Your task to perform on an android device: Open wifi settings Image 0: 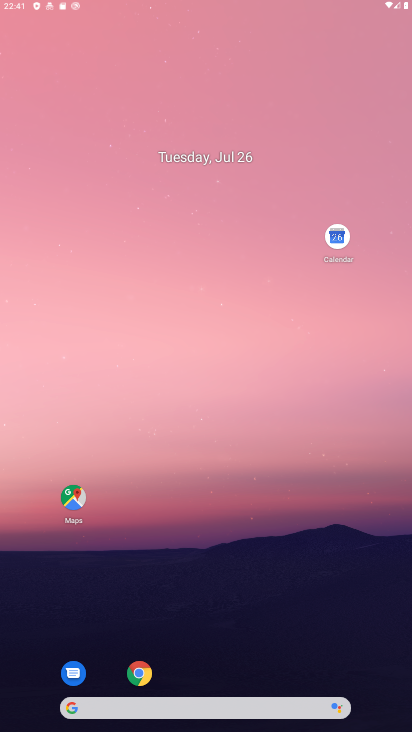
Step 0: drag from (276, 562) to (167, 25)
Your task to perform on an android device: Open wifi settings Image 1: 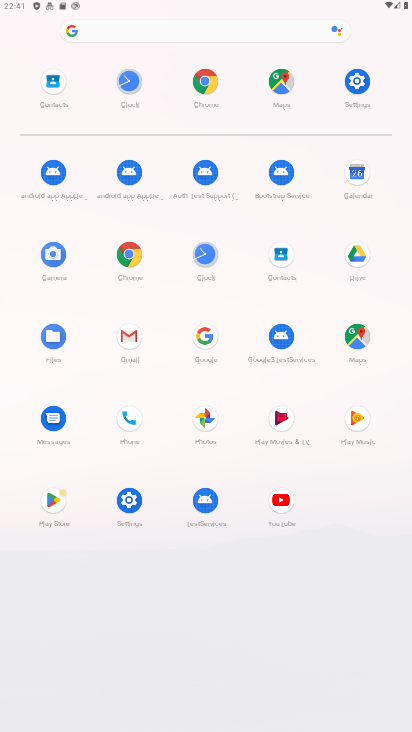
Step 1: click (78, 100)
Your task to perform on an android device: Open wifi settings Image 2: 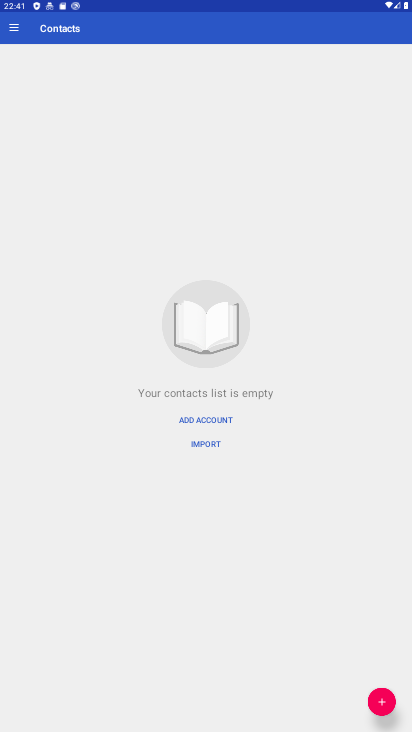
Step 2: press back button
Your task to perform on an android device: Open wifi settings Image 3: 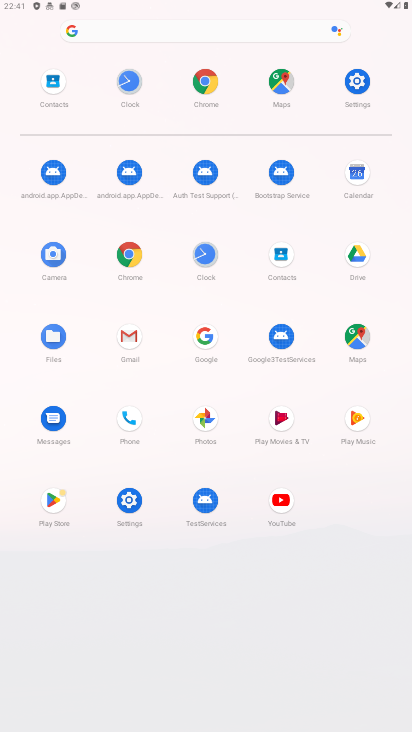
Step 3: click (126, 507)
Your task to perform on an android device: Open wifi settings Image 4: 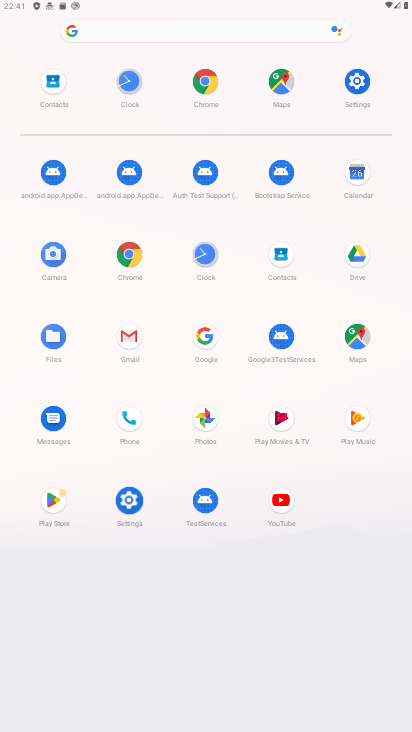
Step 4: click (131, 511)
Your task to perform on an android device: Open wifi settings Image 5: 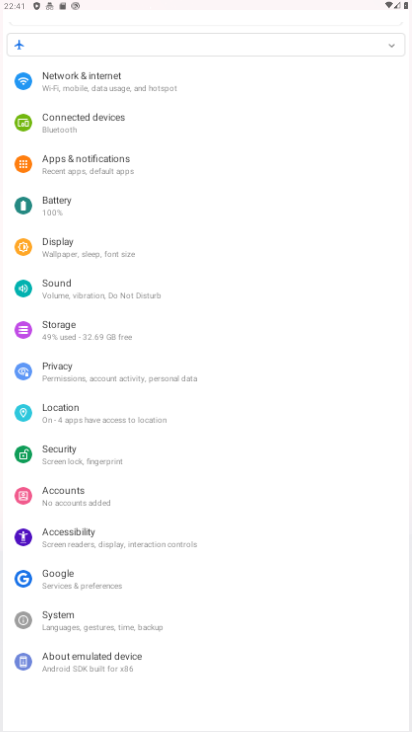
Step 5: click (133, 509)
Your task to perform on an android device: Open wifi settings Image 6: 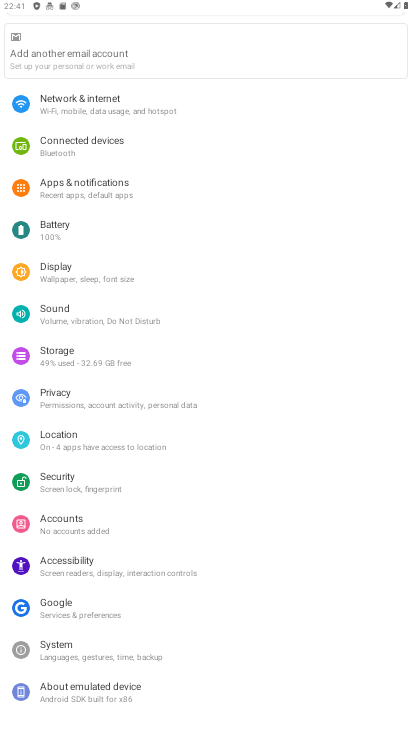
Step 6: click (133, 513)
Your task to perform on an android device: Open wifi settings Image 7: 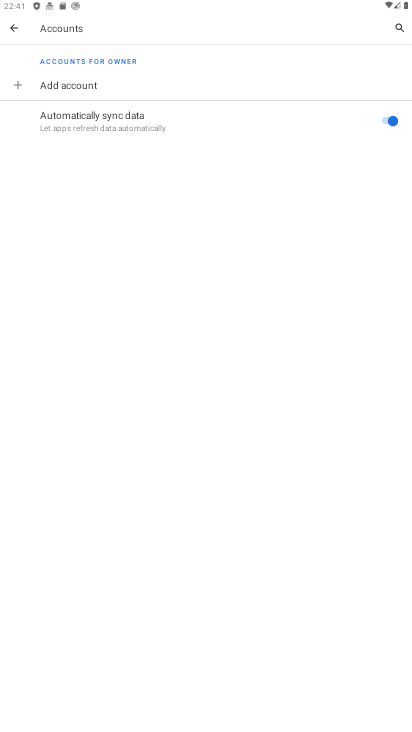
Step 7: click (8, 28)
Your task to perform on an android device: Open wifi settings Image 8: 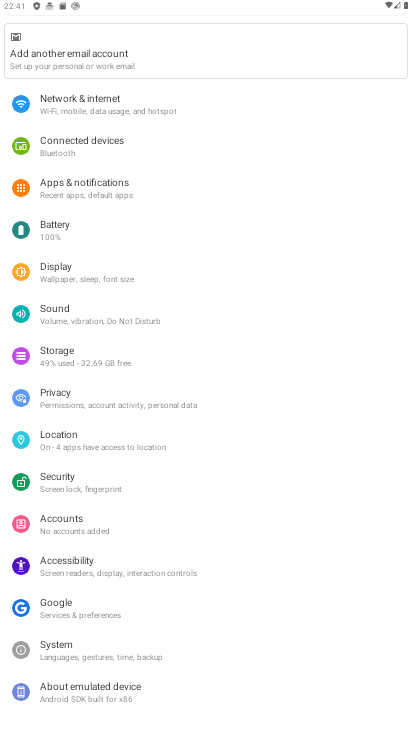
Step 8: click (118, 436)
Your task to perform on an android device: Open wifi settings Image 9: 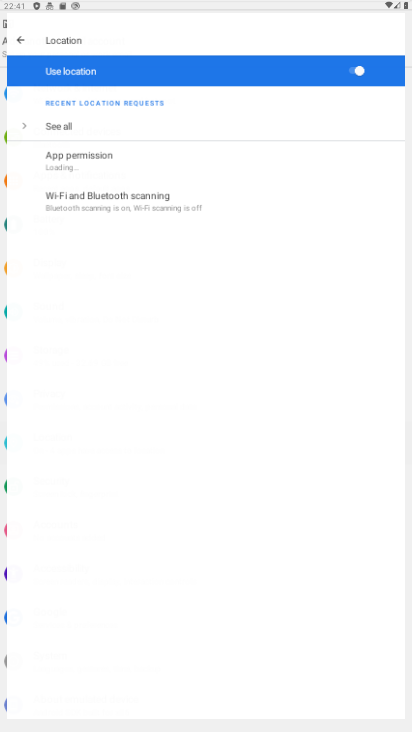
Step 9: click (81, 105)
Your task to perform on an android device: Open wifi settings Image 10: 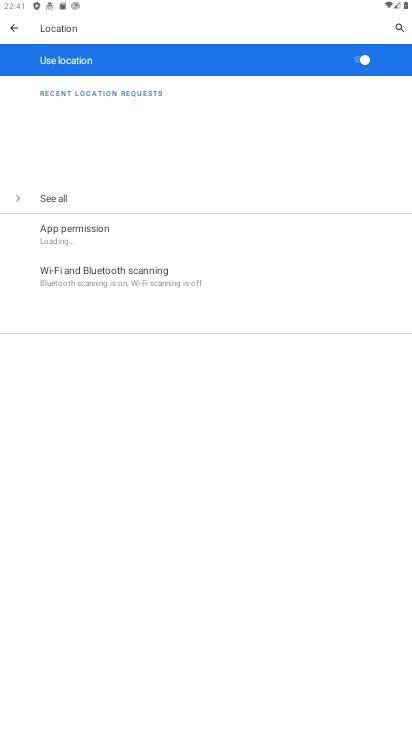
Step 10: click (83, 103)
Your task to perform on an android device: Open wifi settings Image 11: 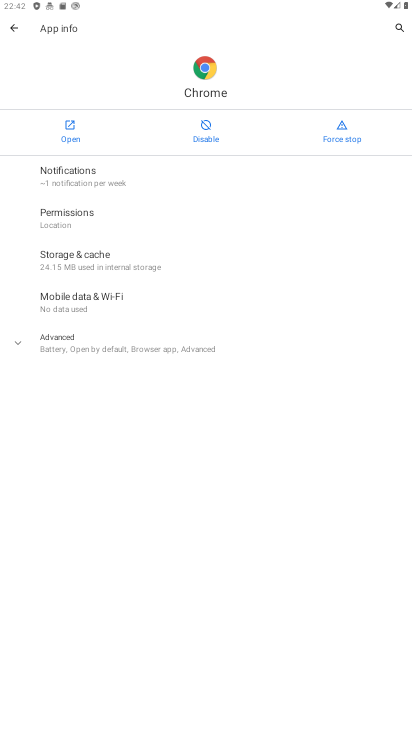
Step 11: click (6, 18)
Your task to perform on an android device: Open wifi settings Image 12: 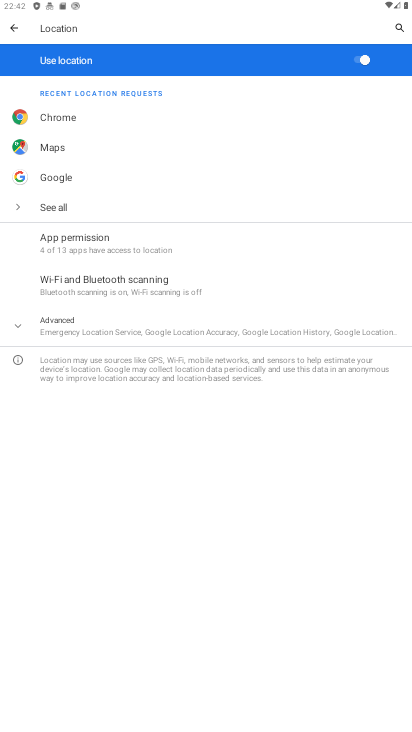
Step 12: click (9, 22)
Your task to perform on an android device: Open wifi settings Image 13: 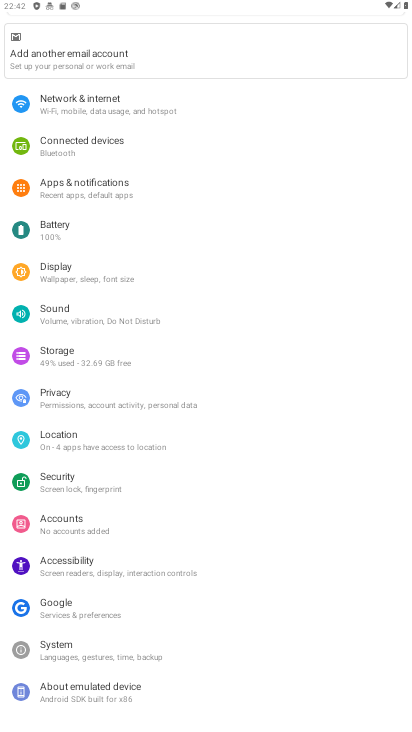
Step 13: click (79, 104)
Your task to perform on an android device: Open wifi settings Image 14: 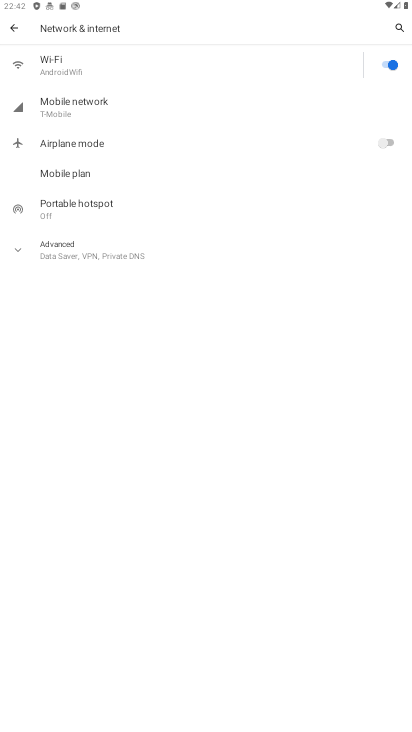
Step 14: click (15, 20)
Your task to perform on an android device: Open wifi settings Image 15: 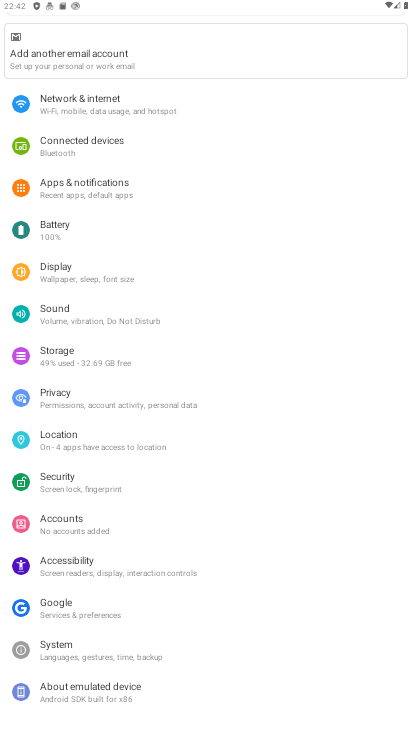
Step 15: press back button
Your task to perform on an android device: Open wifi settings Image 16: 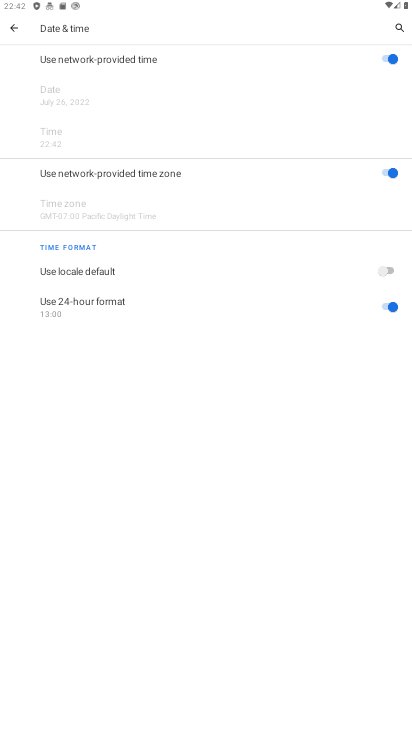
Step 16: click (6, 24)
Your task to perform on an android device: Open wifi settings Image 17: 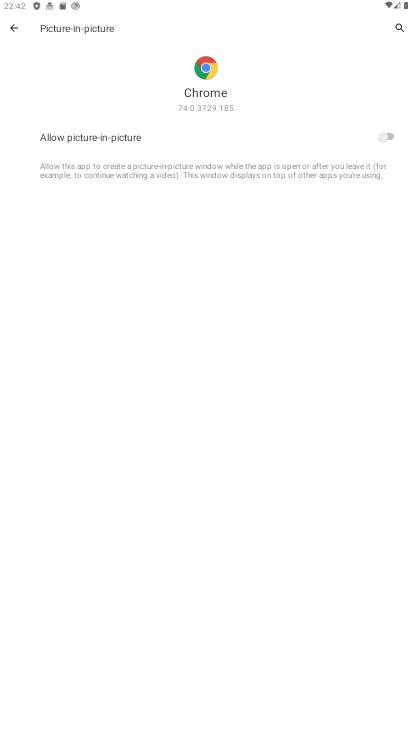
Step 17: press home button
Your task to perform on an android device: Open wifi settings Image 18: 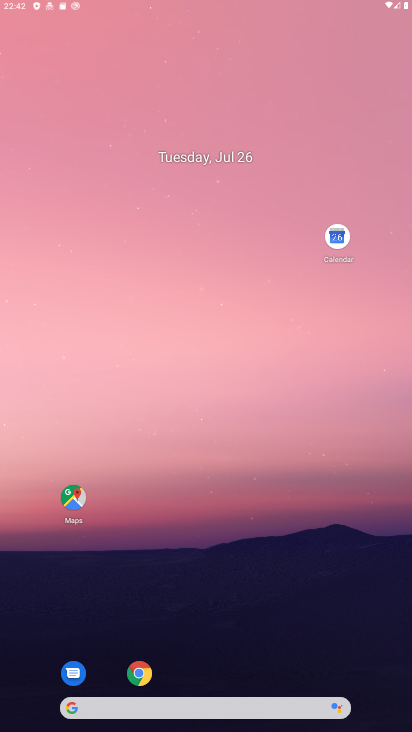
Step 18: click (17, 21)
Your task to perform on an android device: Open wifi settings Image 19: 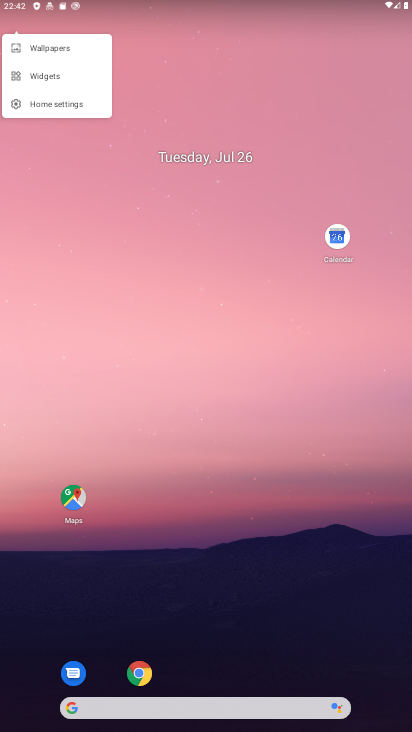
Step 19: drag from (169, 66) to (193, 0)
Your task to perform on an android device: Open wifi settings Image 20: 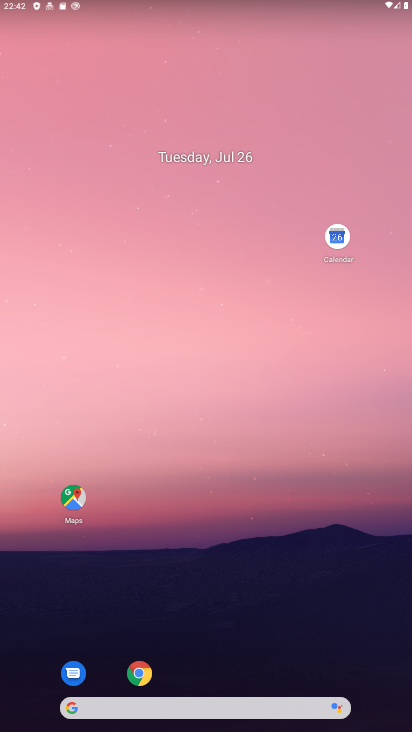
Step 20: click (162, 71)
Your task to perform on an android device: Open wifi settings Image 21: 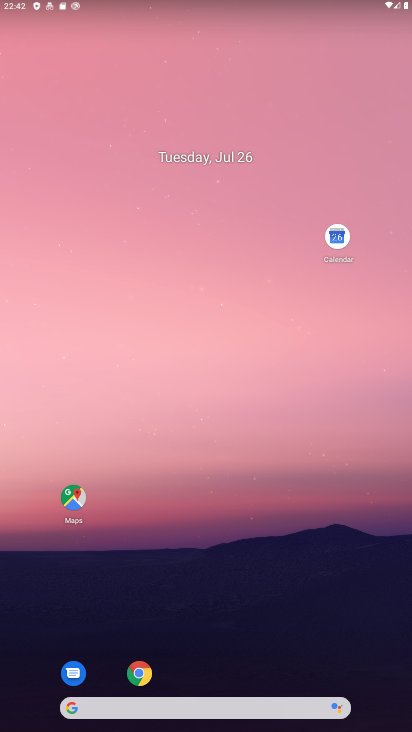
Step 21: click (201, 24)
Your task to perform on an android device: Open wifi settings Image 22: 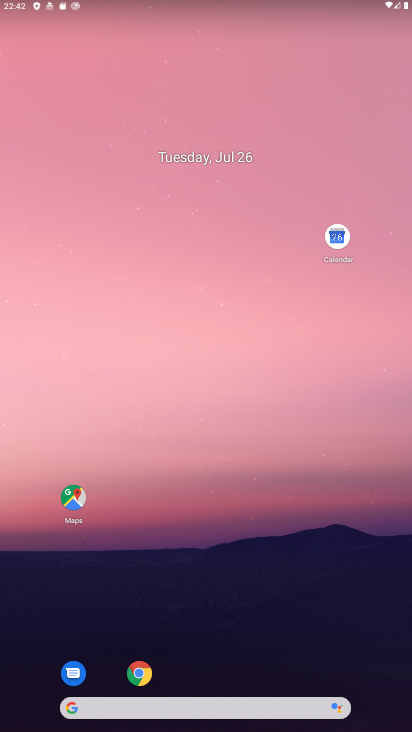
Step 22: click (176, 19)
Your task to perform on an android device: Open wifi settings Image 23: 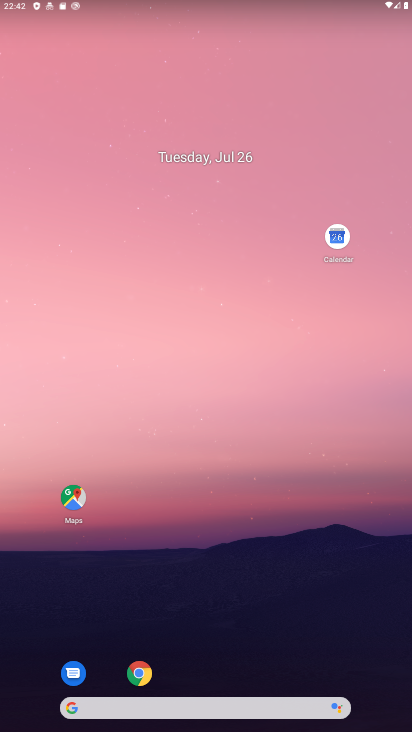
Step 23: click (264, 49)
Your task to perform on an android device: Open wifi settings Image 24: 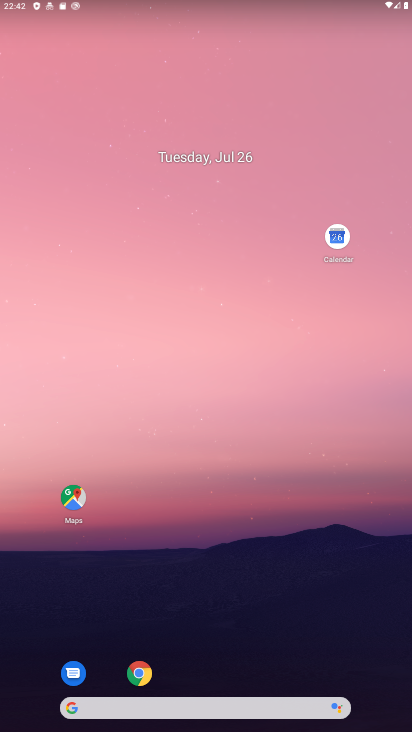
Step 24: drag from (230, 70) to (279, 81)
Your task to perform on an android device: Open wifi settings Image 25: 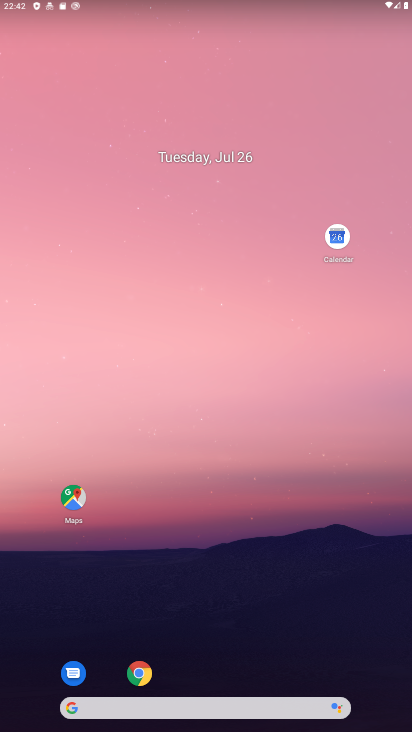
Step 25: drag from (245, 265) to (214, 12)
Your task to perform on an android device: Open wifi settings Image 26: 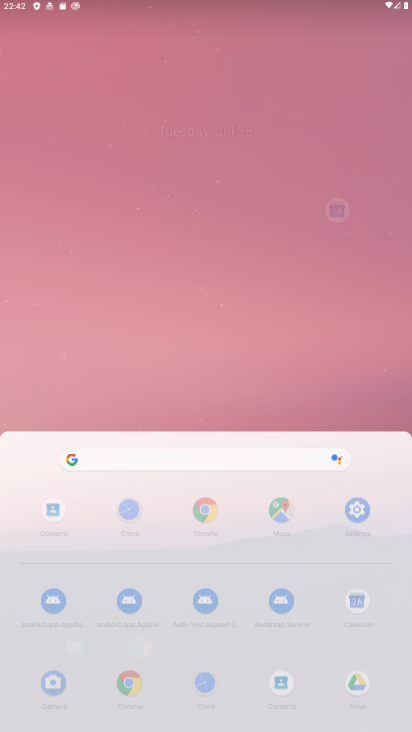
Step 26: drag from (221, 490) to (192, 92)
Your task to perform on an android device: Open wifi settings Image 27: 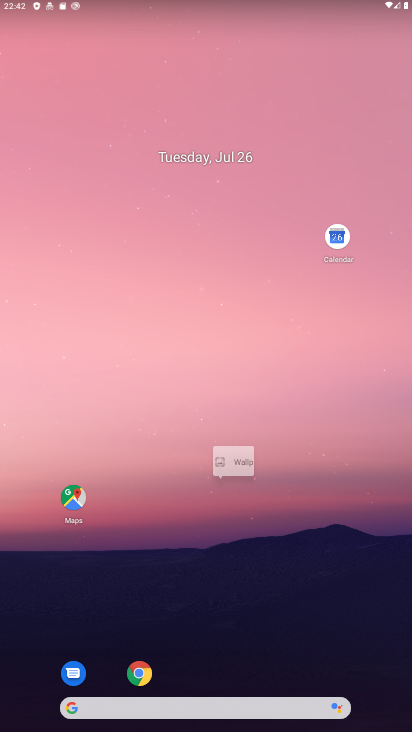
Step 27: drag from (139, 0) to (190, 51)
Your task to perform on an android device: Open wifi settings Image 28: 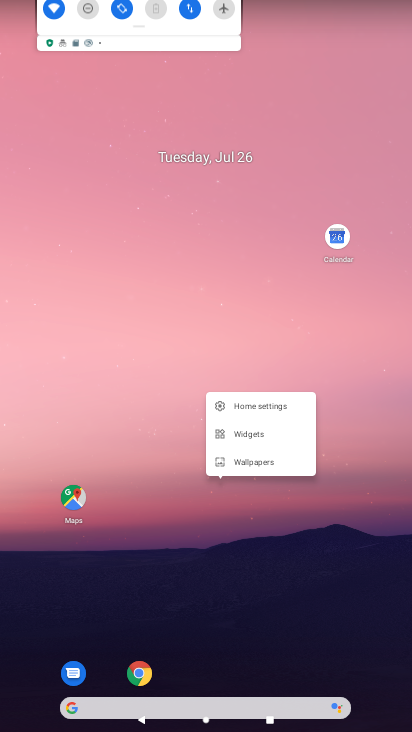
Step 28: click (148, 129)
Your task to perform on an android device: Open wifi settings Image 29: 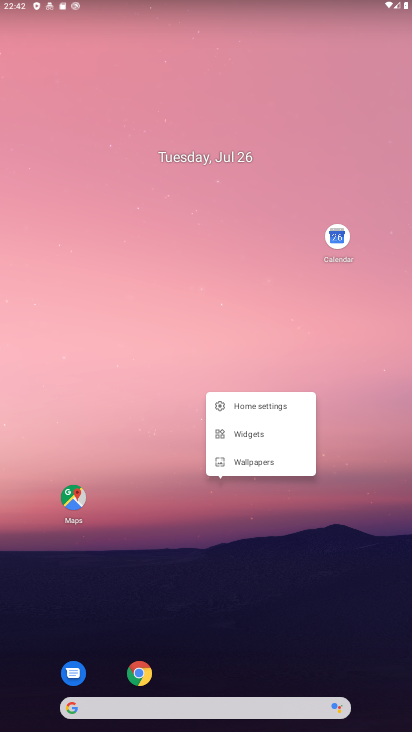
Step 29: drag from (137, 248) to (129, 109)
Your task to perform on an android device: Open wifi settings Image 30: 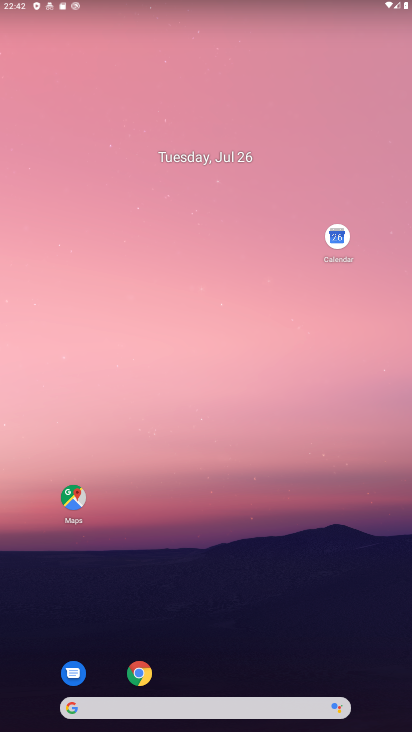
Step 30: drag from (149, 99) to (120, 73)
Your task to perform on an android device: Open wifi settings Image 31: 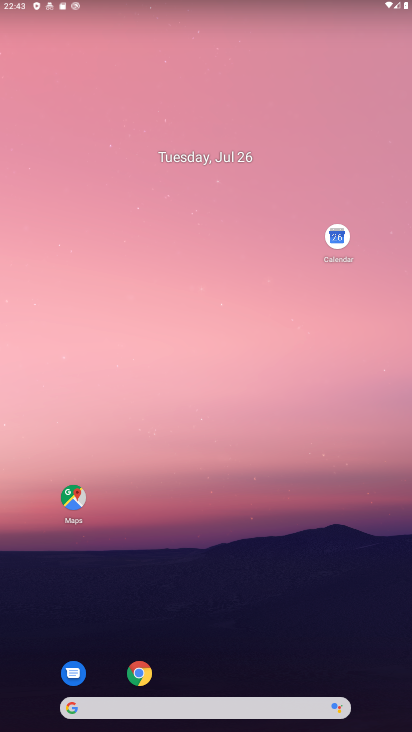
Step 31: drag from (203, 495) to (220, 140)
Your task to perform on an android device: Open wifi settings Image 32: 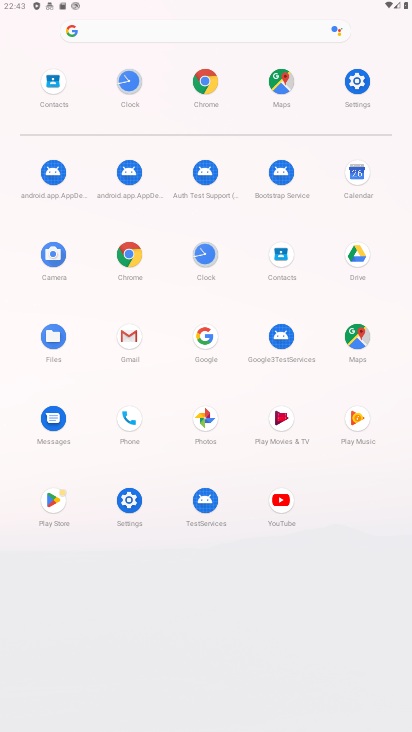
Step 32: click (364, 76)
Your task to perform on an android device: Open wifi settings Image 33: 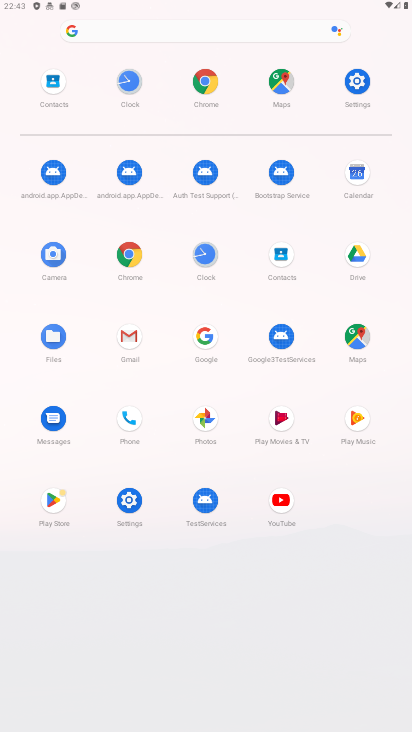
Step 33: click (366, 77)
Your task to perform on an android device: Open wifi settings Image 34: 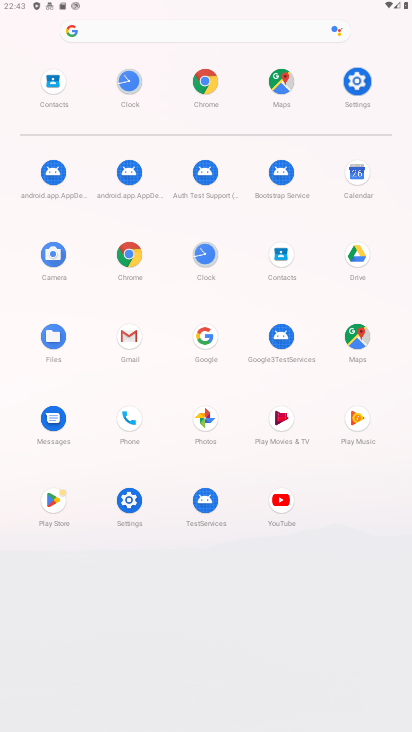
Step 34: click (366, 78)
Your task to perform on an android device: Open wifi settings Image 35: 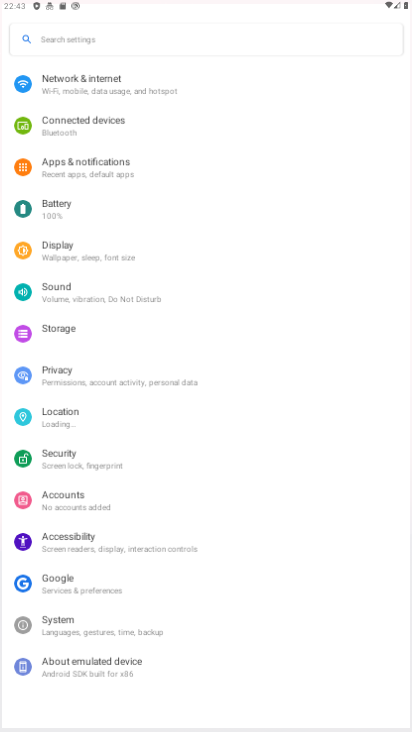
Step 35: click (369, 78)
Your task to perform on an android device: Open wifi settings Image 36: 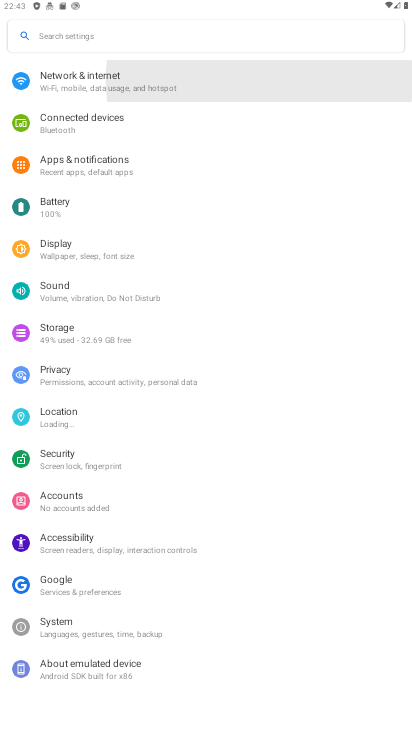
Step 36: click (370, 77)
Your task to perform on an android device: Open wifi settings Image 37: 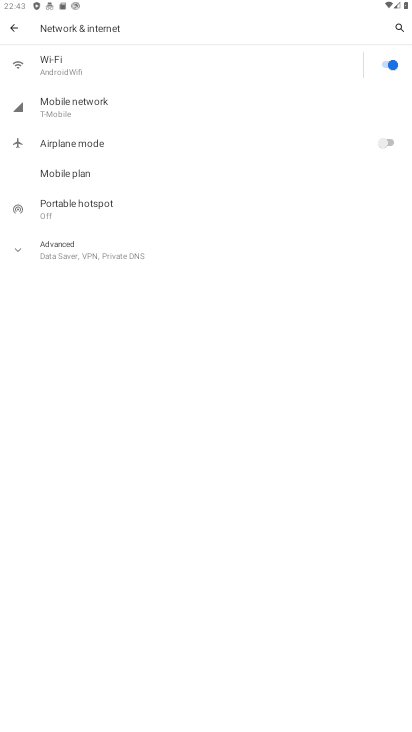
Step 37: task complete